Your task to perform on an android device: Is it going to rain today? Image 0: 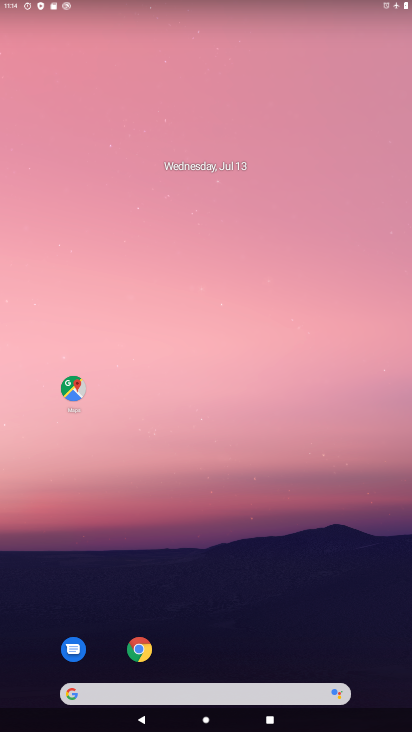
Step 0: drag from (181, 692) to (179, 197)
Your task to perform on an android device: Is it going to rain today? Image 1: 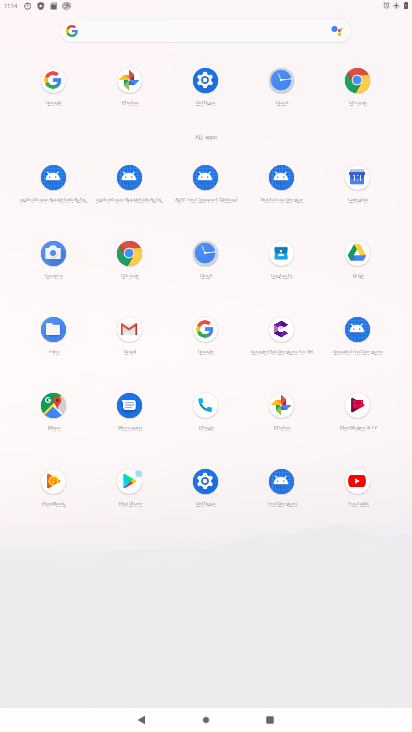
Step 1: click (204, 327)
Your task to perform on an android device: Is it going to rain today? Image 2: 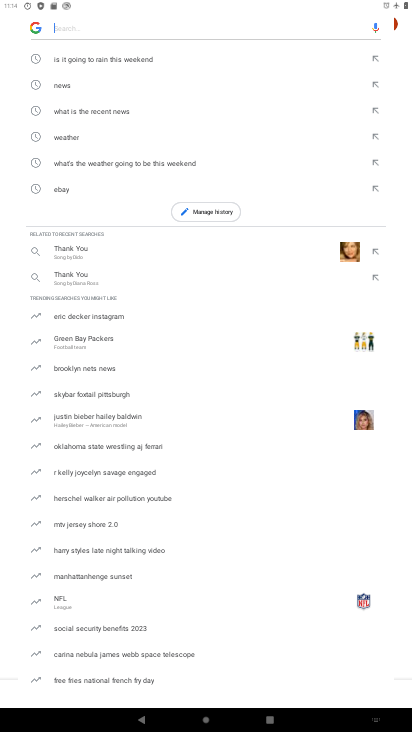
Step 2: click (233, 21)
Your task to perform on an android device: Is it going to rain today? Image 3: 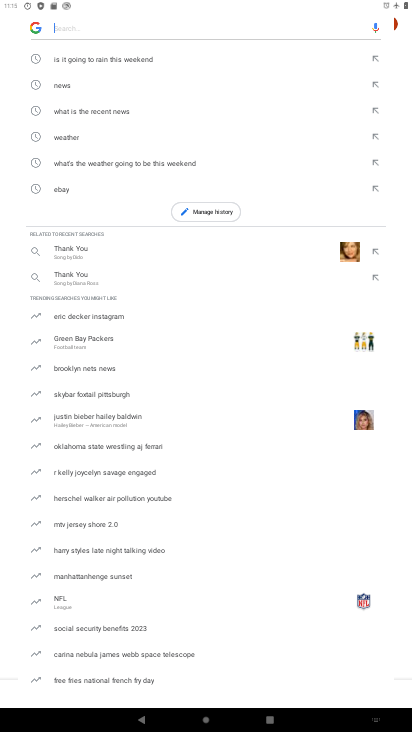
Step 3: type "Is it going to rain today?"
Your task to perform on an android device: Is it going to rain today? Image 4: 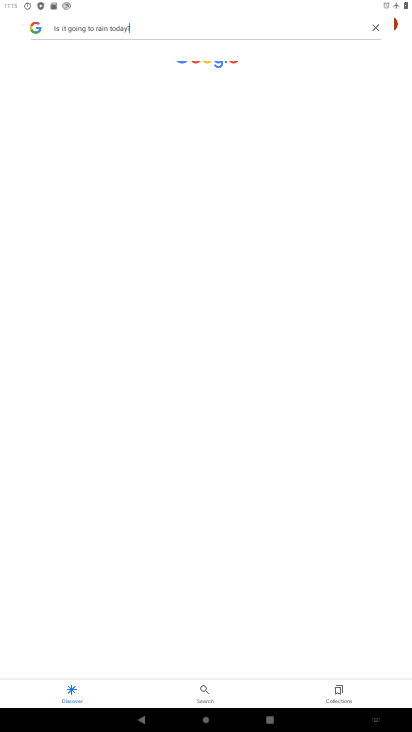
Step 4: task complete